Your task to perform on an android device: read, delete, or share a saved page in the chrome app Image 0: 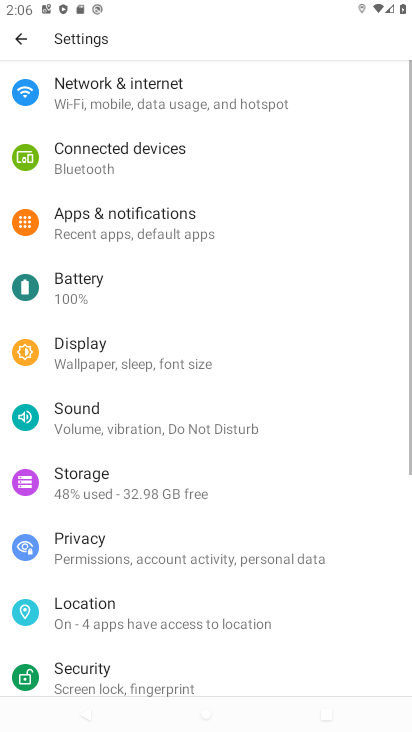
Step 0: press home button
Your task to perform on an android device: read, delete, or share a saved page in the chrome app Image 1: 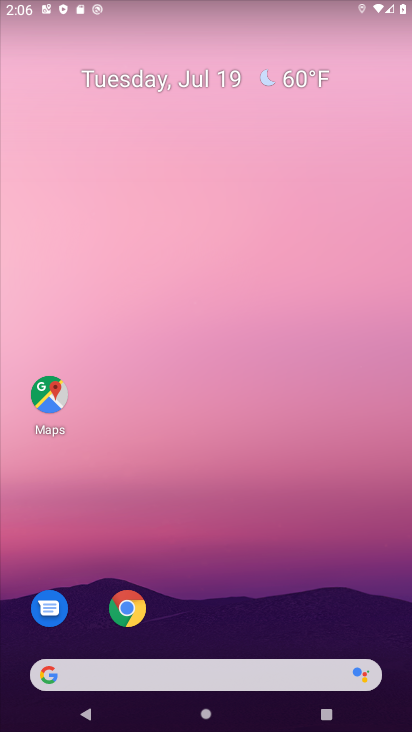
Step 1: drag from (209, 594) to (263, 14)
Your task to perform on an android device: read, delete, or share a saved page in the chrome app Image 2: 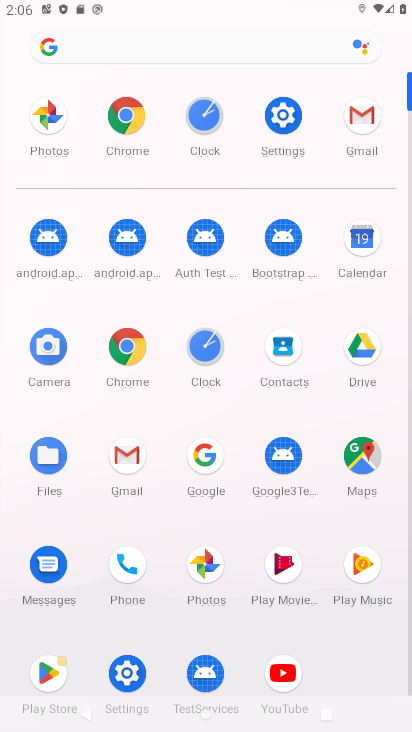
Step 2: click (125, 125)
Your task to perform on an android device: read, delete, or share a saved page in the chrome app Image 3: 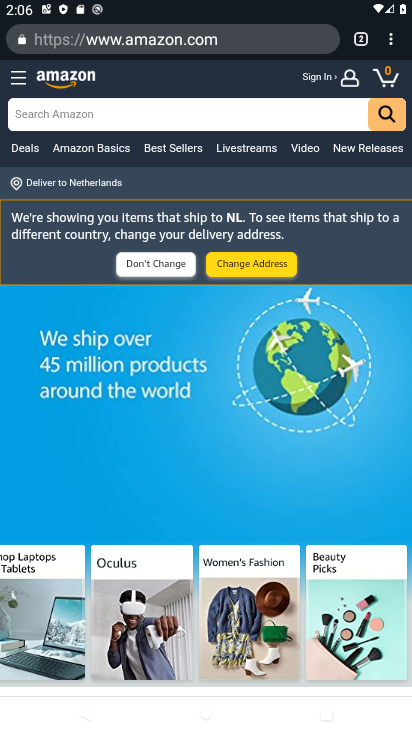
Step 3: task complete